Your task to perform on an android device: Open Chrome and go to settings Image 0: 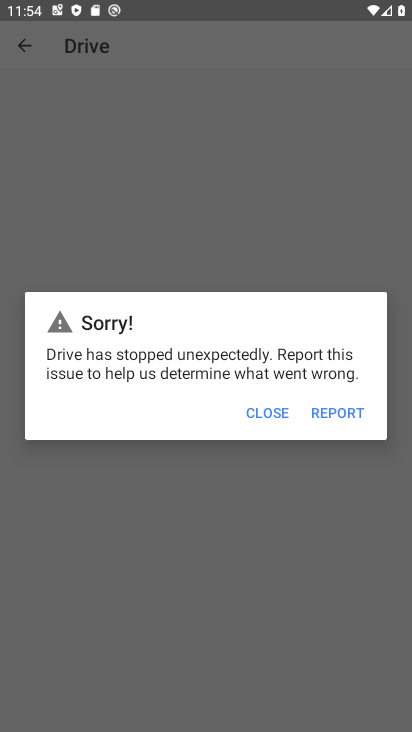
Step 0: press home button
Your task to perform on an android device: Open Chrome and go to settings Image 1: 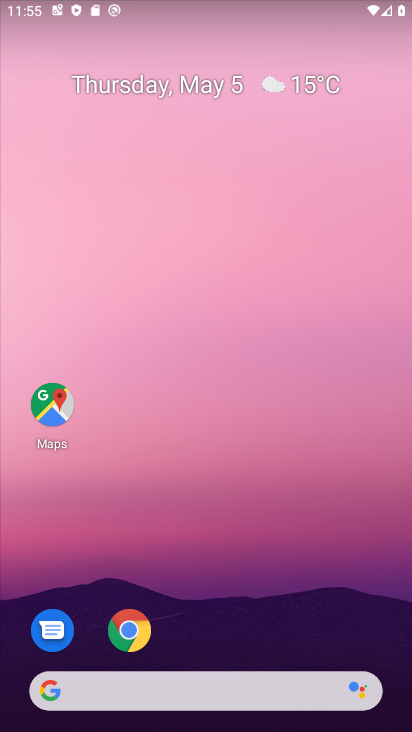
Step 1: click (135, 641)
Your task to perform on an android device: Open Chrome and go to settings Image 2: 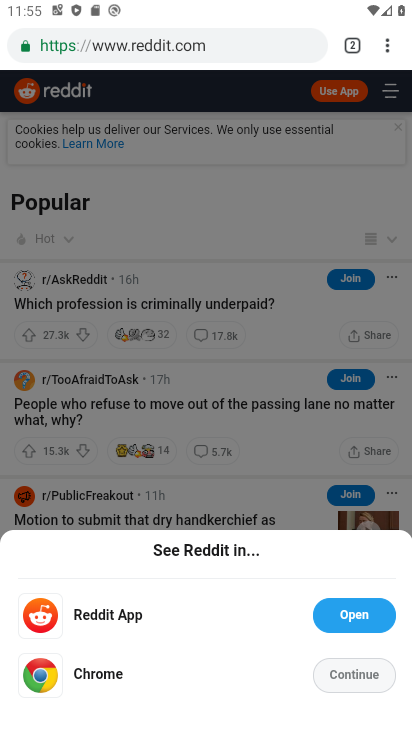
Step 2: task complete